Your task to perform on an android device: Check the weather Image 0: 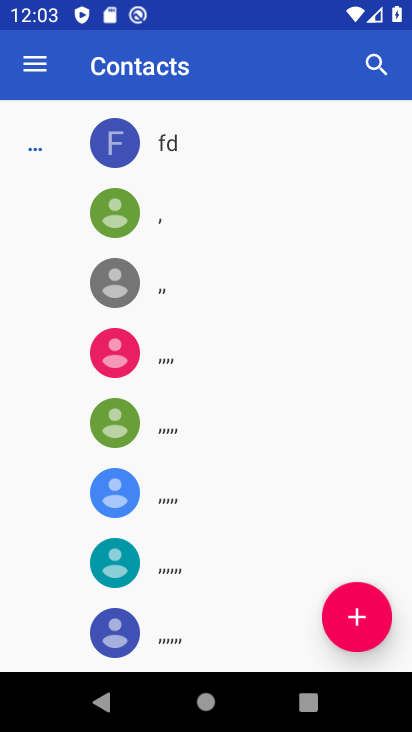
Step 0: press home button
Your task to perform on an android device: Check the weather Image 1: 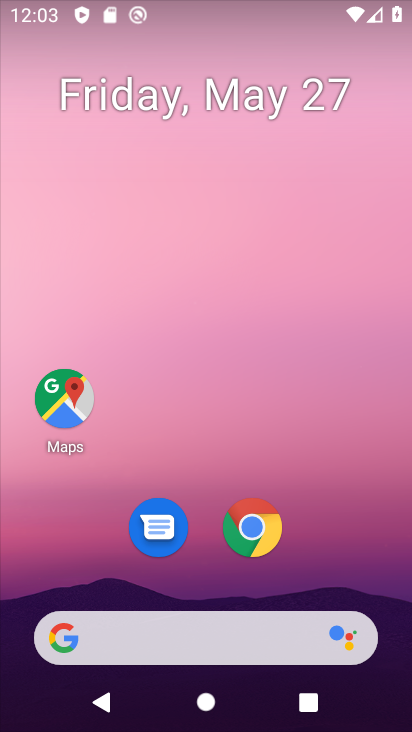
Step 1: click (272, 628)
Your task to perform on an android device: Check the weather Image 2: 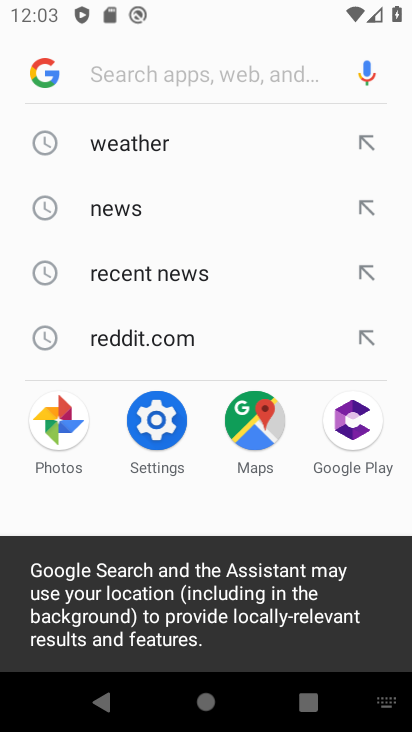
Step 2: click (148, 142)
Your task to perform on an android device: Check the weather Image 3: 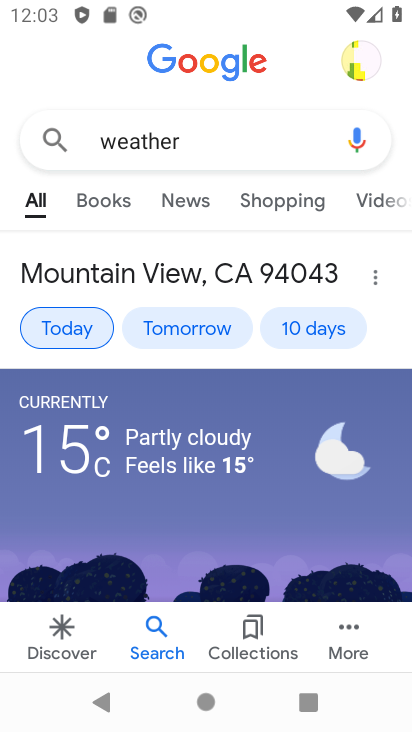
Step 3: task complete